Your task to perform on an android device: open sync settings in chrome Image 0: 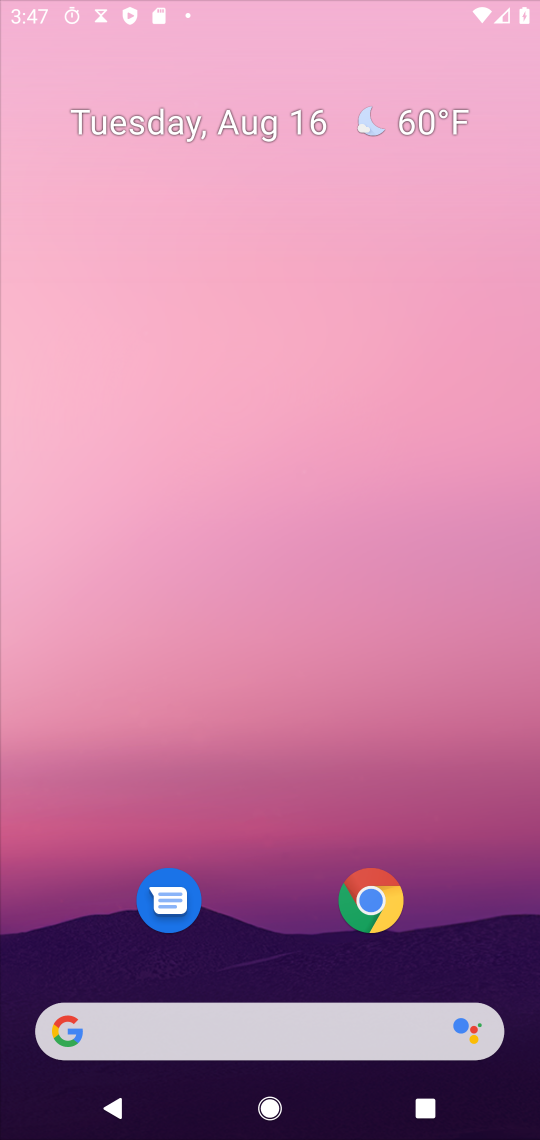
Step 0: press home button
Your task to perform on an android device: open sync settings in chrome Image 1: 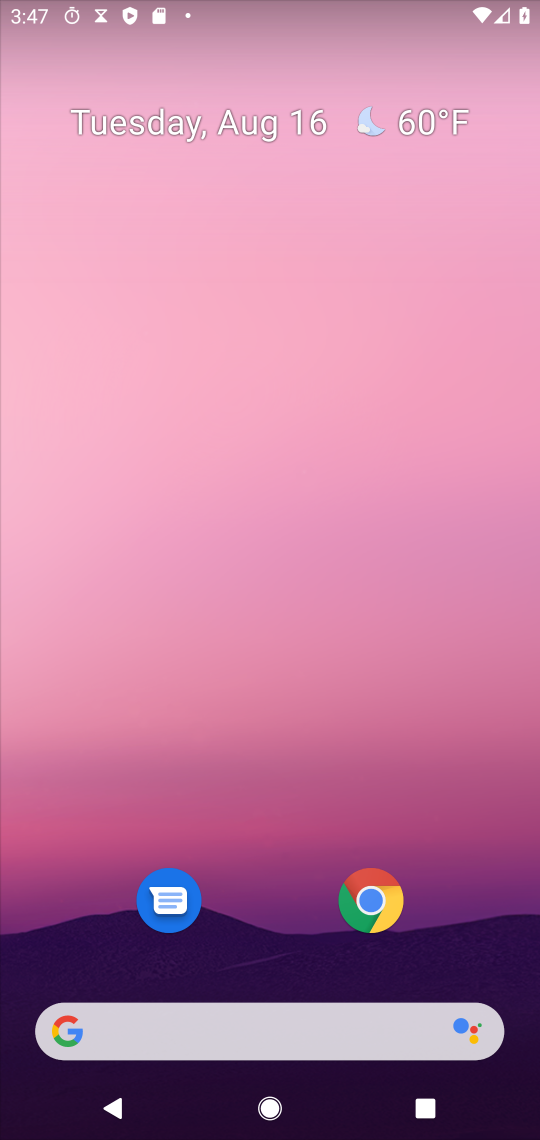
Step 1: drag from (248, 971) to (198, 147)
Your task to perform on an android device: open sync settings in chrome Image 2: 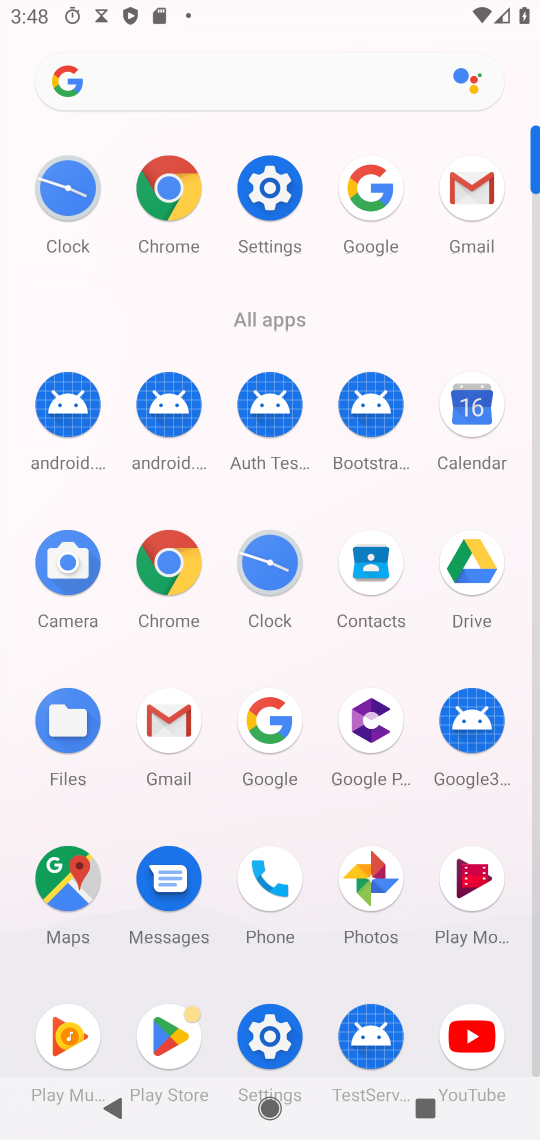
Step 2: click (172, 568)
Your task to perform on an android device: open sync settings in chrome Image 3: 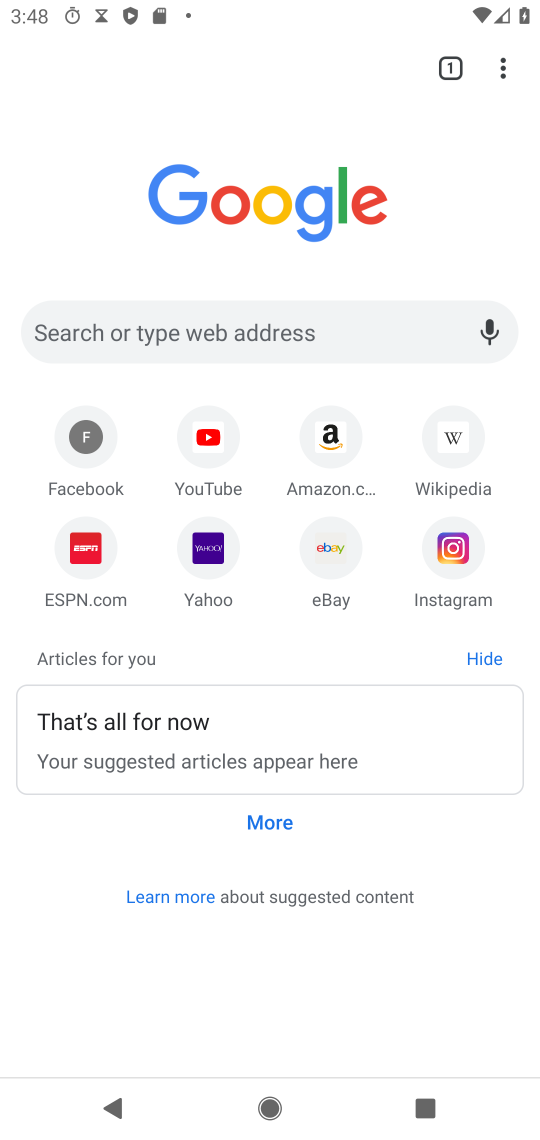
Step 3: click (504, 77)
Your task to perform on an android device: open sync settings in chrome Image 4: 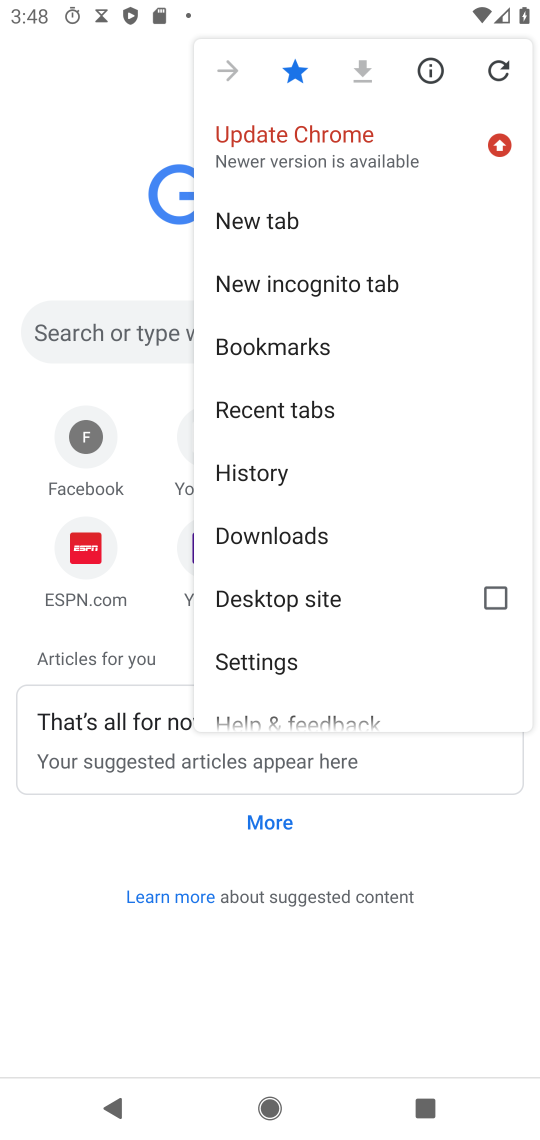
Step 4: click (238, 658)
Your task to perform on an android device: open sync settings in chrome Image 5: 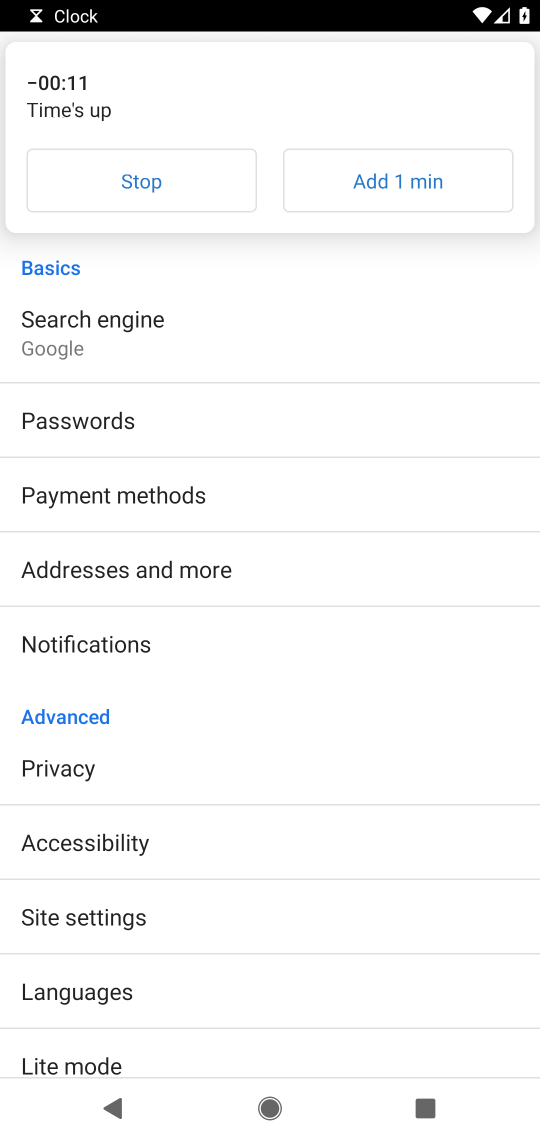
Step 5: click (82, 918)
Your task to perform on an android device: open sync settings in chrome Image 6: 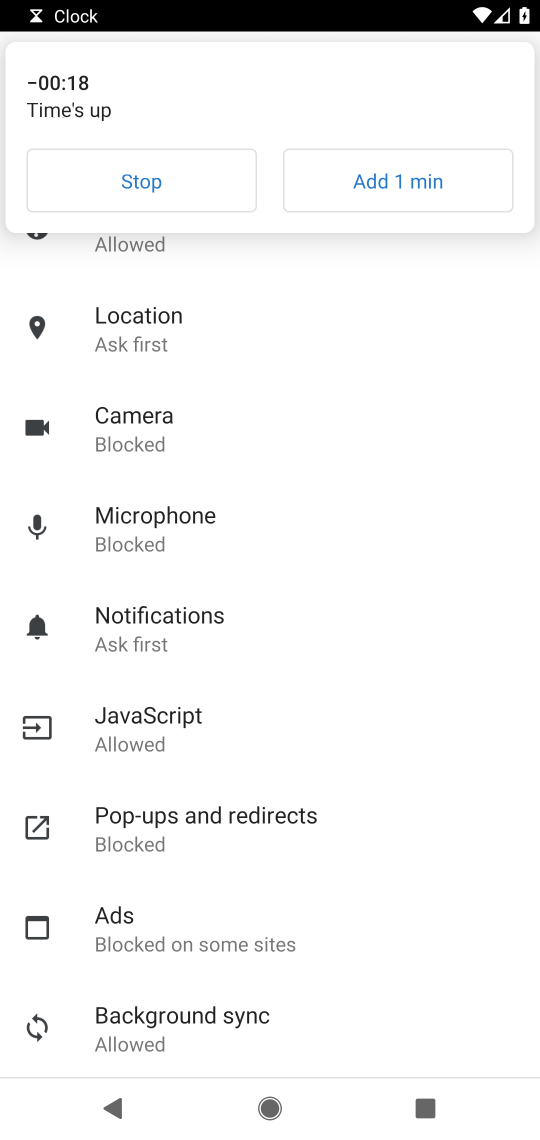
Step 6: click (121, 1025)
Your task to perform on an android device: open sync settings in chrome Image 7: 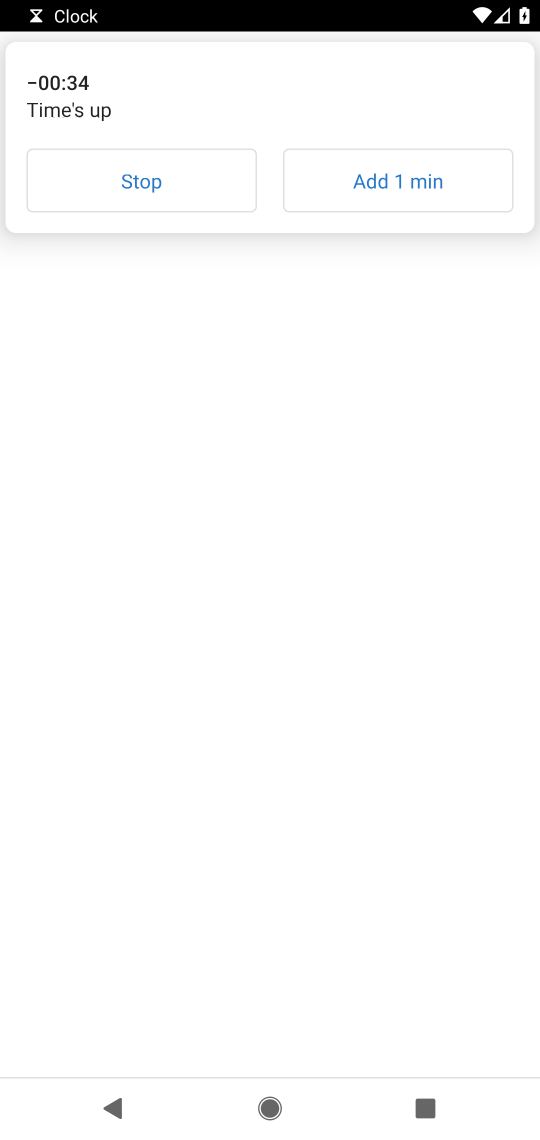
Step 7: click (156, 189)
Your task to perform on an android device: open sync settings in chrome Image 8: 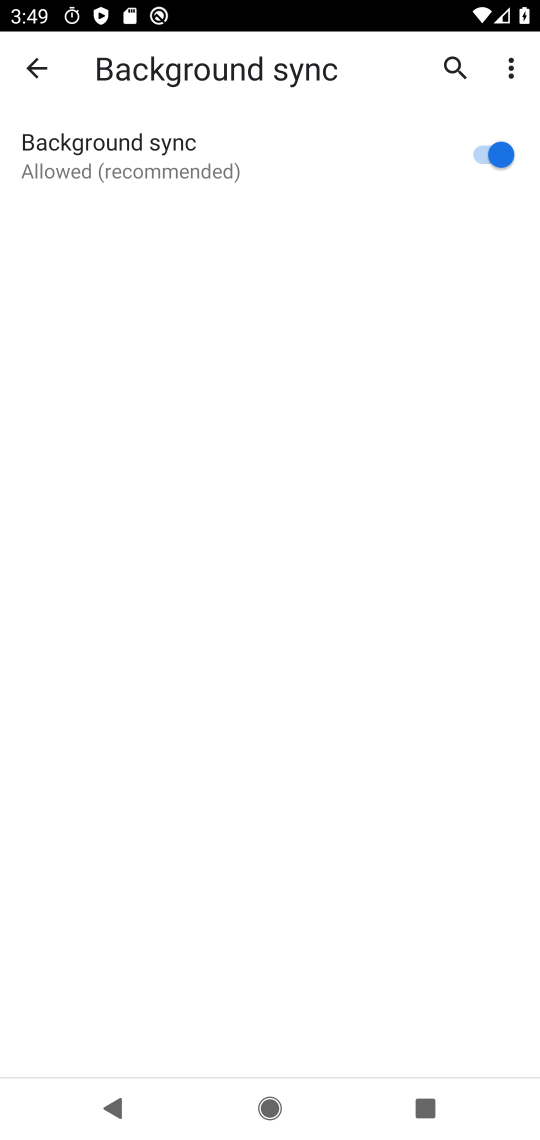
Step 8: task complete